Your task to perform on an android device: Open Youtube and go to "Your channel" Image 0: 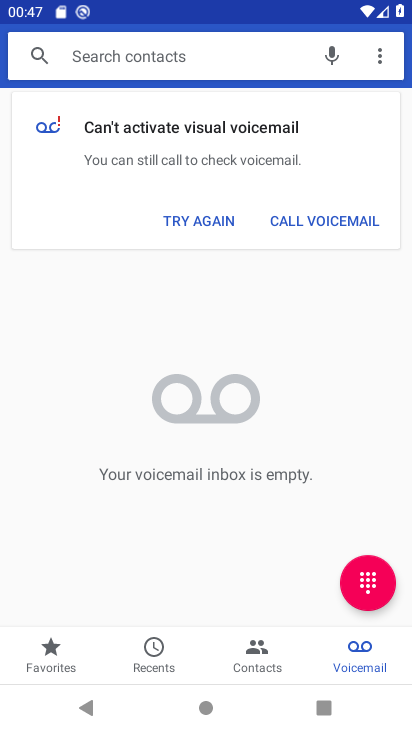
Step 0: press home button
Your task to perform on an android device: Open Youtube and go to "Your channel" Image 1: 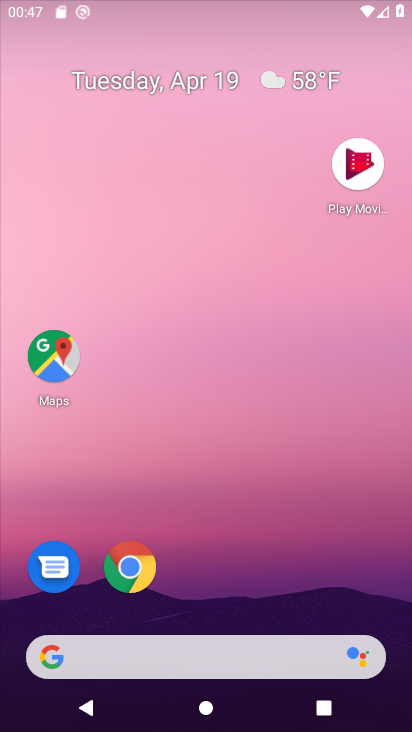
Step 1: drag from (169, 612) to (248, 102)
Your task to perform on an android device: Open Youtube and go to "Your channel" Image 2: 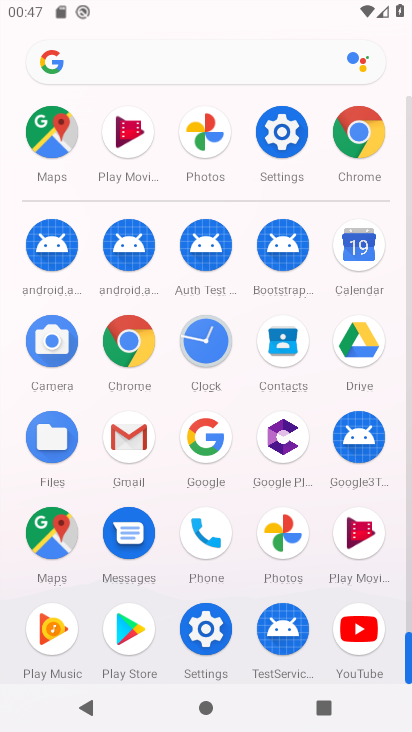
Step 2: click (362, 638)
Your task to perform on an android device: Open Youtube and go to "Your channel" Image 3: 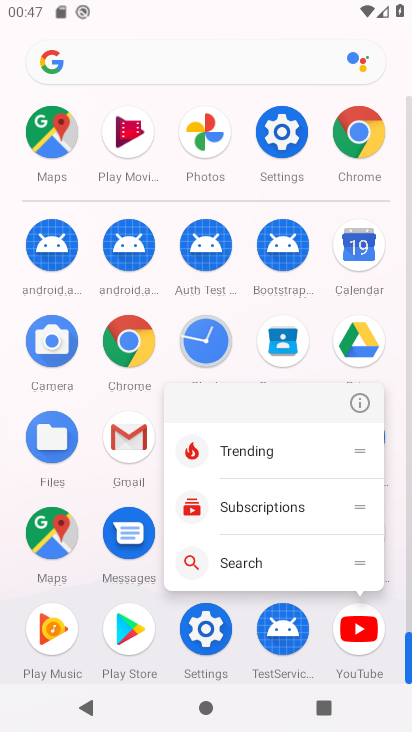
Step 3: click (358, 397)
Your task to perform on an android device: Open Youtube and go to "Your channel" Image 4: 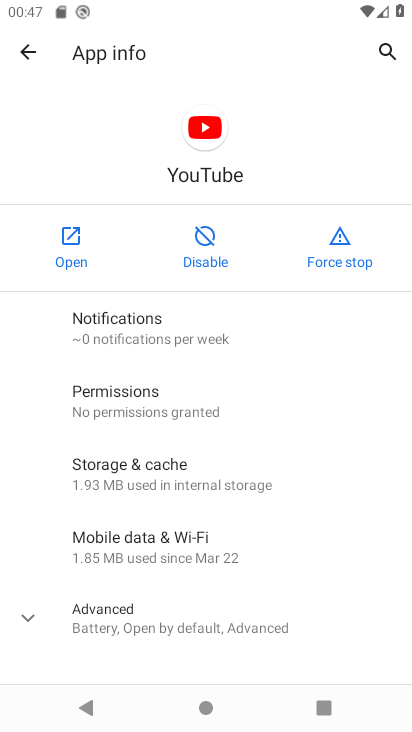
Step 4: click (62, 268)
Your task to perform on an android device: Open Youtube and go to "Your channel" Image 5: 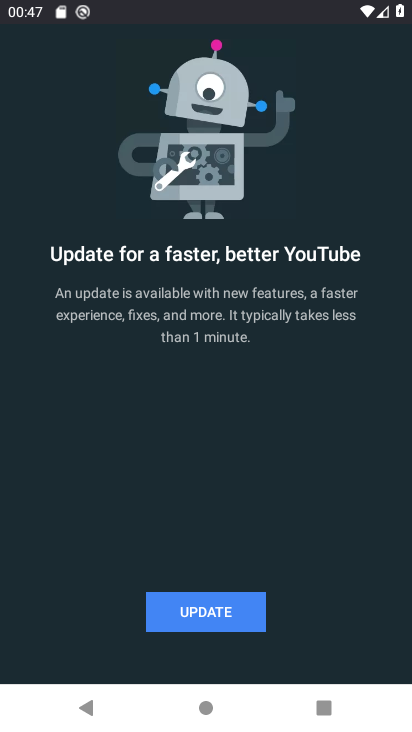
Step 5: task complete